Your task to perform on an android device: move an email to a new category in the gmail app Image 0: 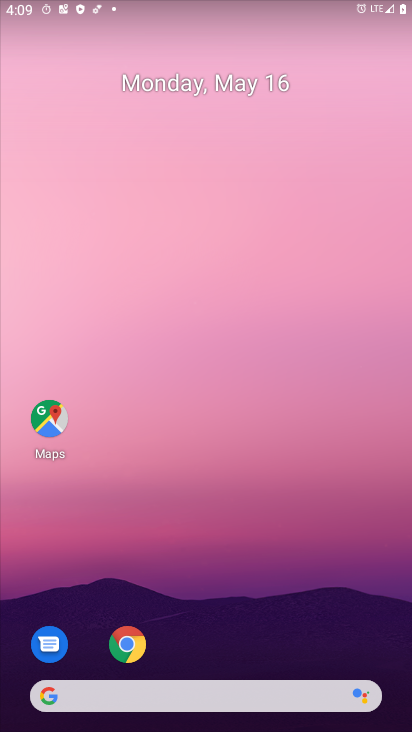
Step 0: press home button
Your task to perform on an android device: move an email to a new category in the gmail app Image 1: 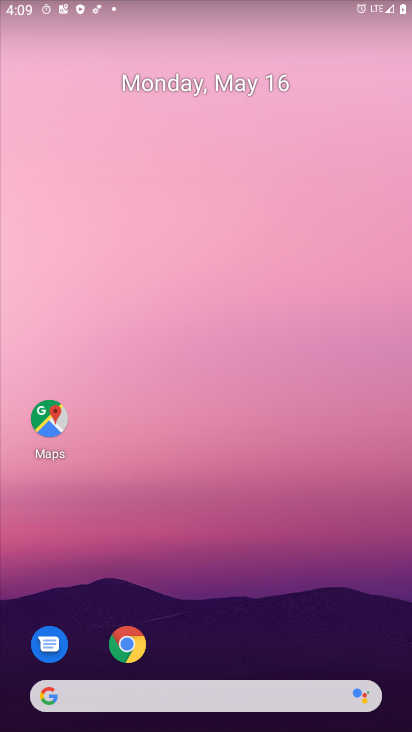
Step 1: drag from (233, 655) to (313, 90)
Your task to perform on an android device: move an email to a new category in the gmail app Image 2: 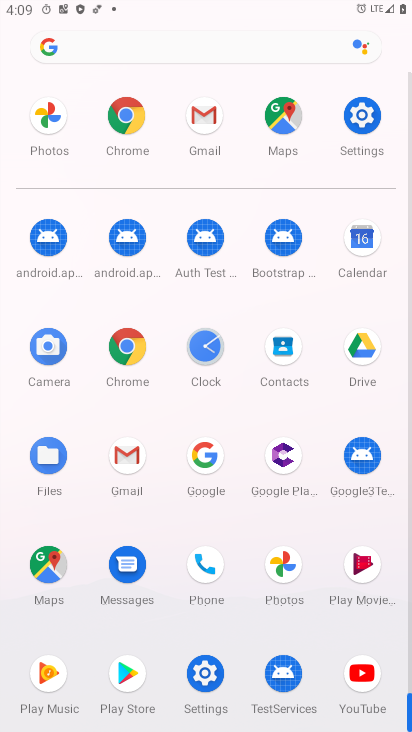
Step 2: click (134, 465)
Your task to perform on an android device: move an email to a new category in the gmail app Image 3: 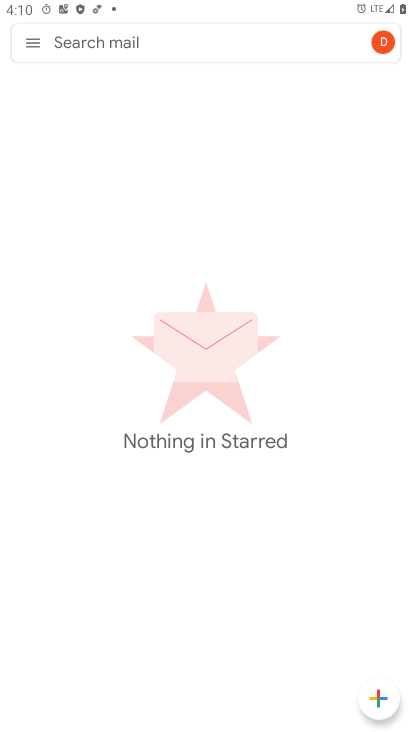
Step 3: click (37, 43)
Your task to perform on an android device: move an email to a new category in the gmail app Image 4: 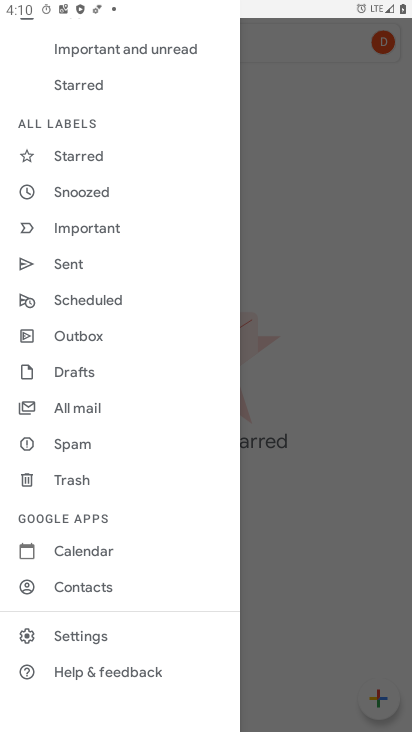
Step 4: click (104, 416)
Your task to perform on an android device: move an email to a new category in the gmail app Image 5: 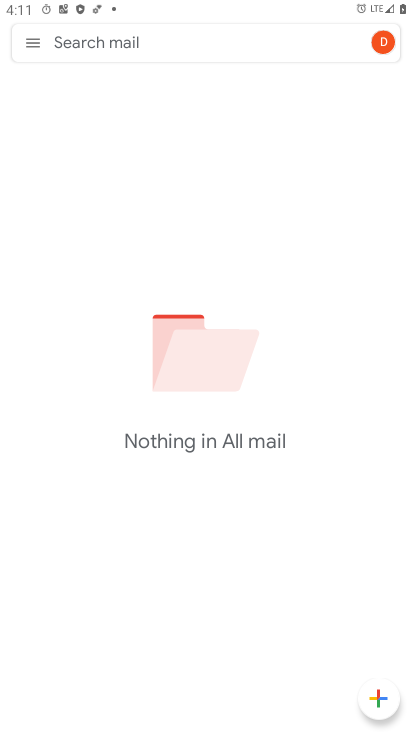
Step 5: task complete